Your task to perform on an android device: find which apps use the phone's location Image 0: 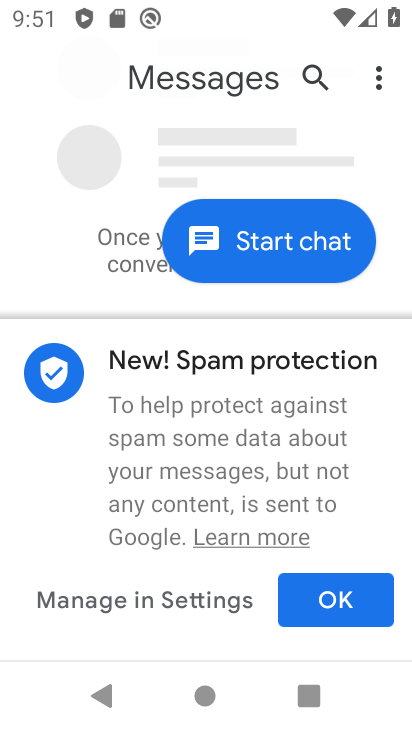
Step 0: press home button
Your task to perform on an android device: find which apps use the phone's location Image 1: 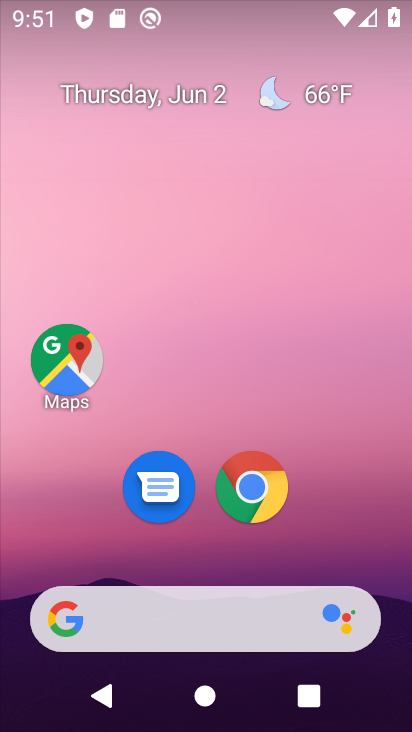
Step 1: drag from (238, 720) to (234, 13)
Your task to perform on an android device: find which apps use the phone's location Image 2: 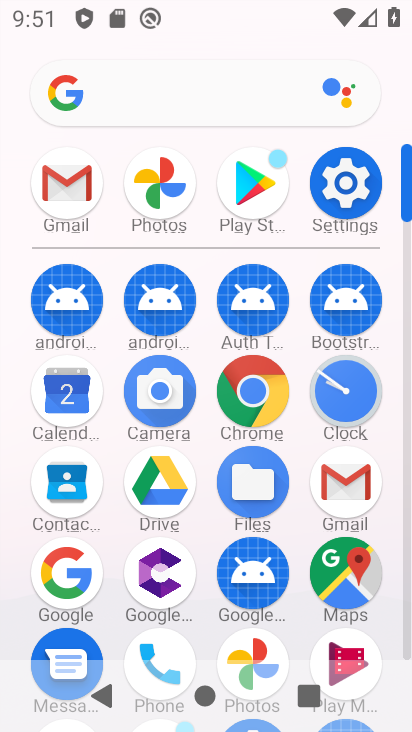
Step 2: click (330, 182)
Your task to perform on an android device: find which apps use the phone's location Image 3: 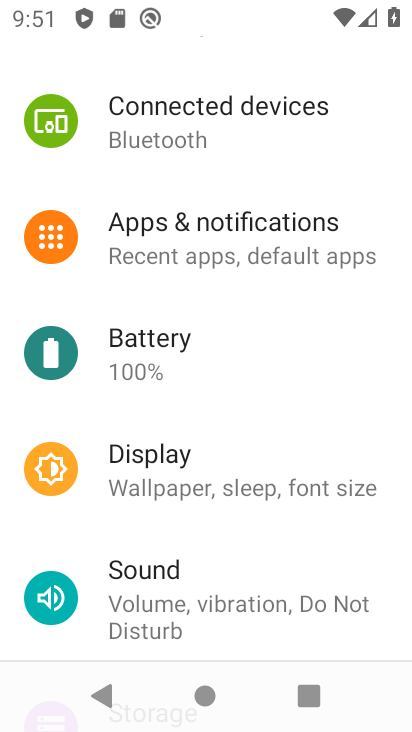
Step 3: drag from (210, 649) to (193, 266)
Your task to perform on an android device: find which apps use the phone's location Image 4: 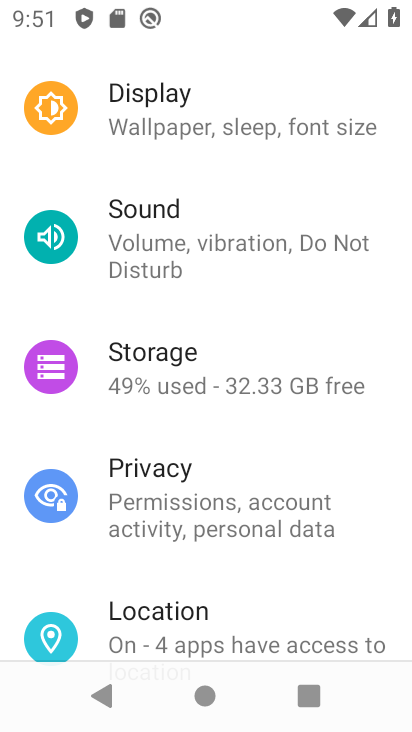
Step 4: click (185, 630)
Your task to perform on an android device: find which apps use the phone's location Image 5: 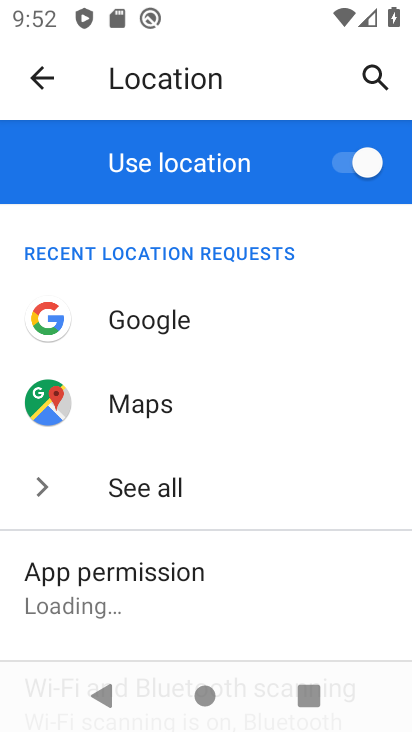
Step 5: click (96, 591)
Your task to perform on an android device: find which apps use the phone's location Image 6: 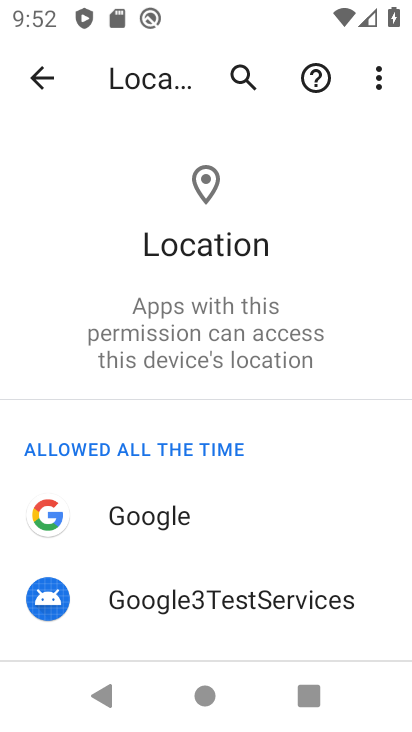
Step 6: task complete